Your task to perform on an android device: Open Google Maps Image 0: 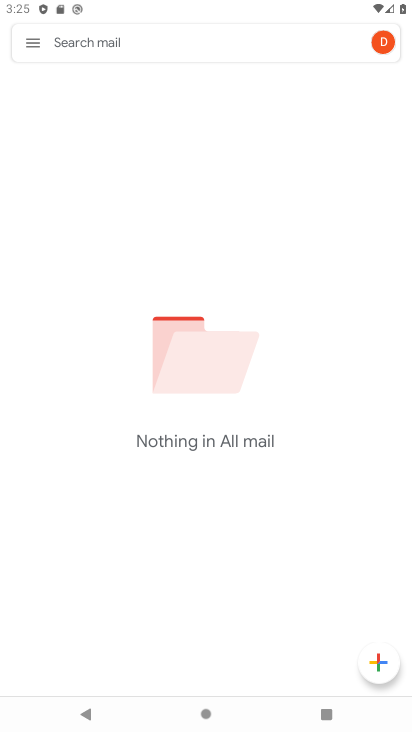
Step 0: press home button
Your task to perform on an android device: Open Google Maps Image 1: 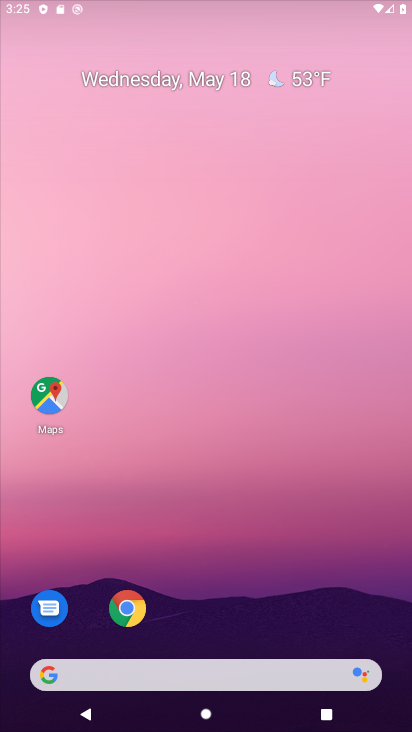
Step 1: drag from (345, 606) to (325, 155)
Your task to perform on an android device: Open Google Maps Image 2: 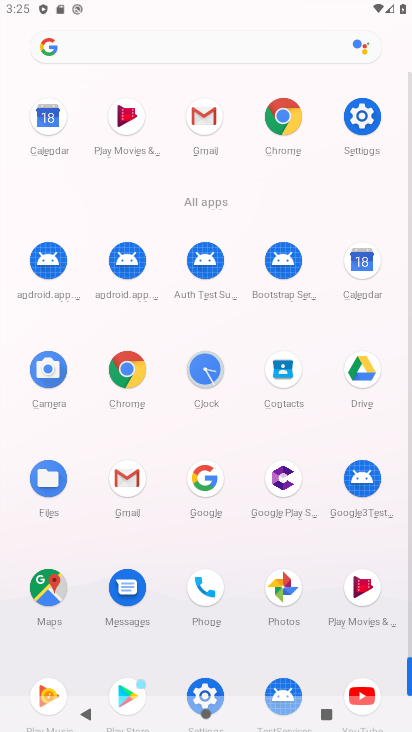
Step 2: click (56, 585)
Your task to perform on an android device: Open Google Maps Image 3: 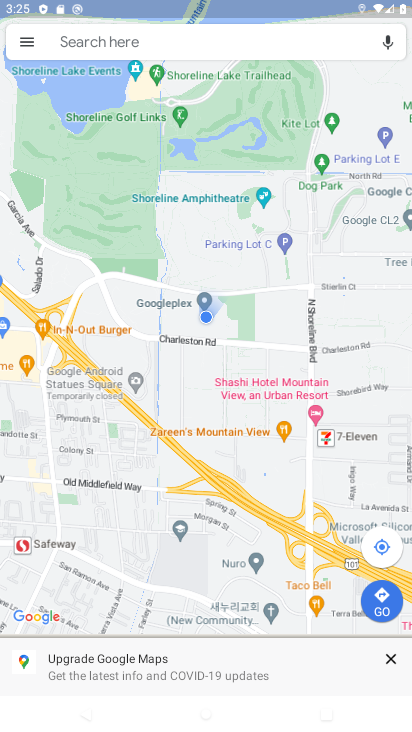
Step 3: task complete